Your task to perform on an android device: check out phone information Image 0: 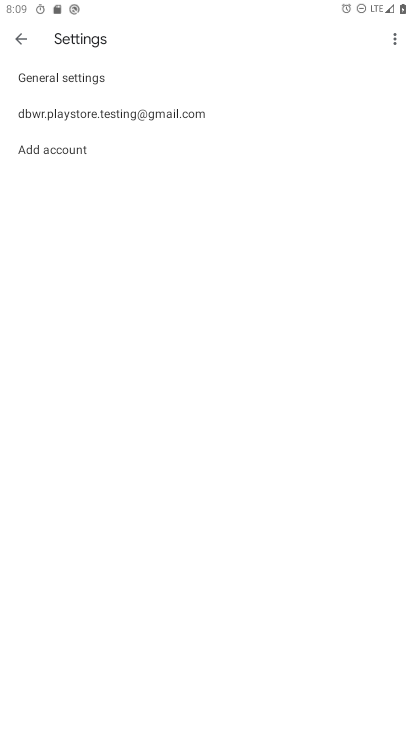
Step 0: press home button
Your task to perform on an android device: check out phone information Image 1: 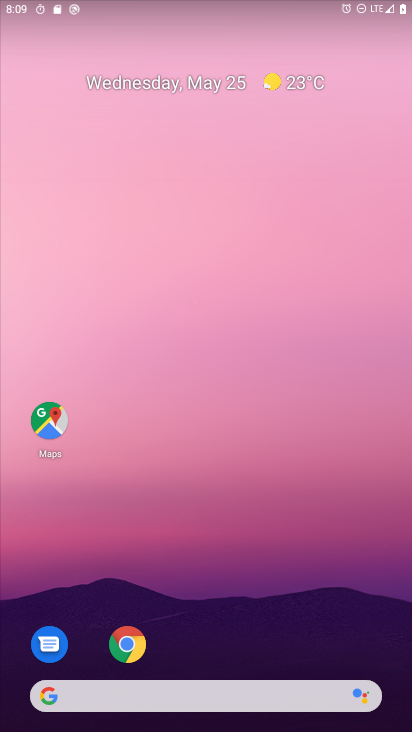
Step 1: drag from (371, 618) to (304, 62)
Your task to perform on an android device: check out phone information Image 2: 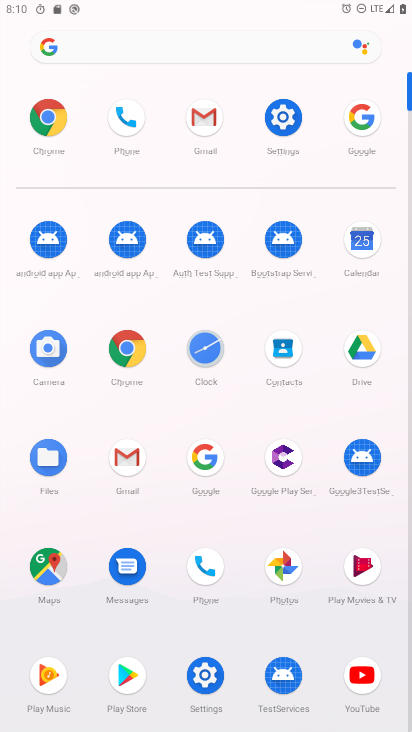
Step 2: click (209, 689)
Your task to perform on an android device: check out phone information Image 3: 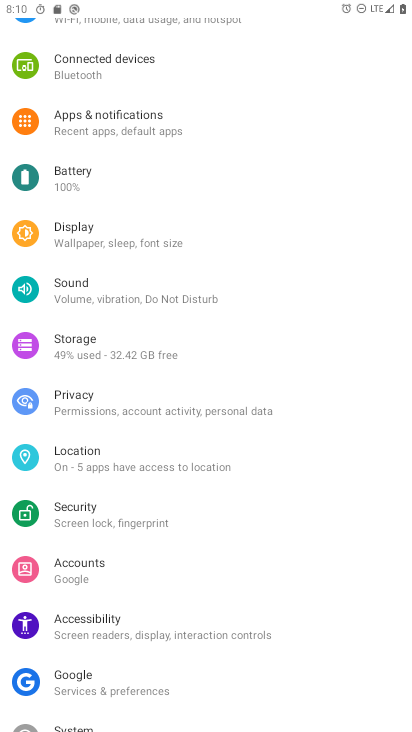
Step 3: drag from (208, 629) to (227, 36)
Your task to perform on an android device: check out phone information Image 4: 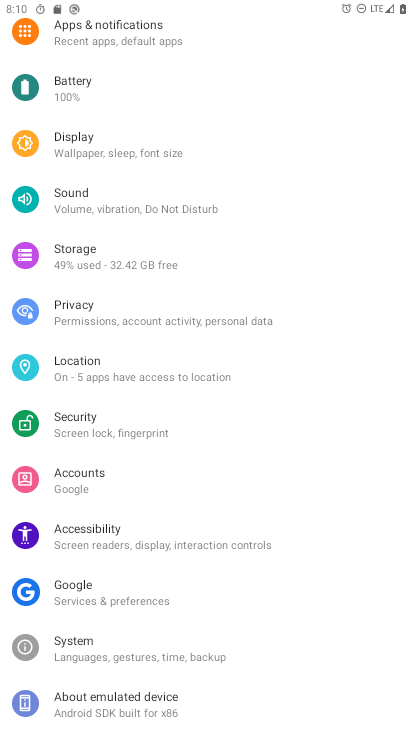
Step 4: click (197, 700)
Your task to perform on an android device: check out phone information Image 5: 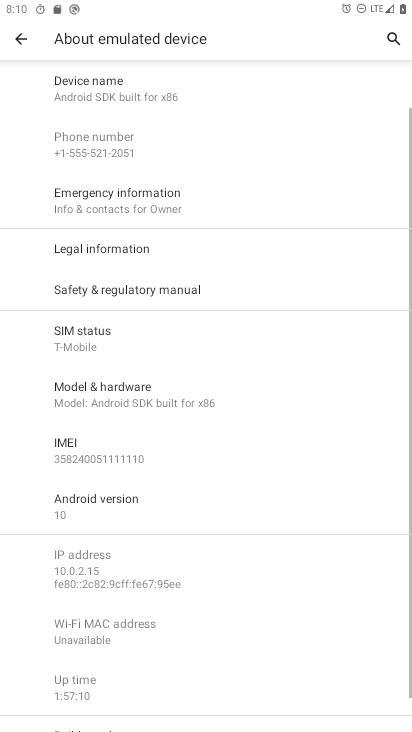
Step 5: task complete